Your task to perform on an android device: show emergency info Image 0: 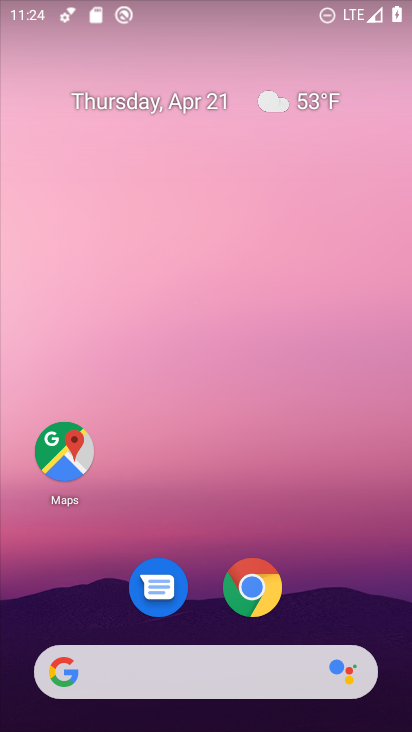
Step 0: drag from (269, 659) to (257, 238)
Your task to perform on an android device: show emergency info Image 1: 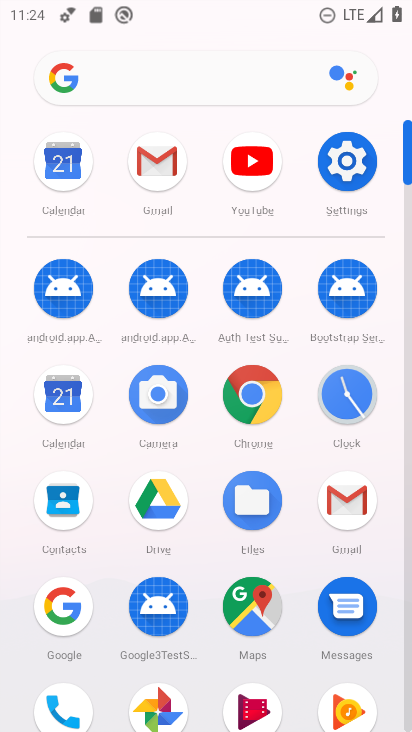
Step 1: click (342, 165)
Your task to perform on an android device: show emergency info Image 2: 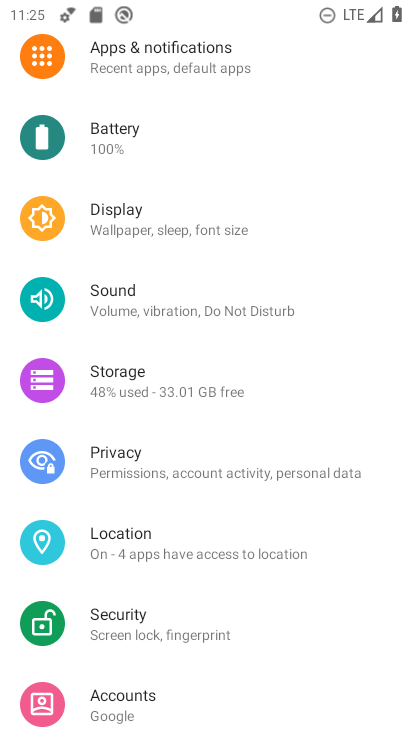
Step 2: drag from (178, 580) to (195, 167)
Your task to perform on an android device: show emergency info Image 3: 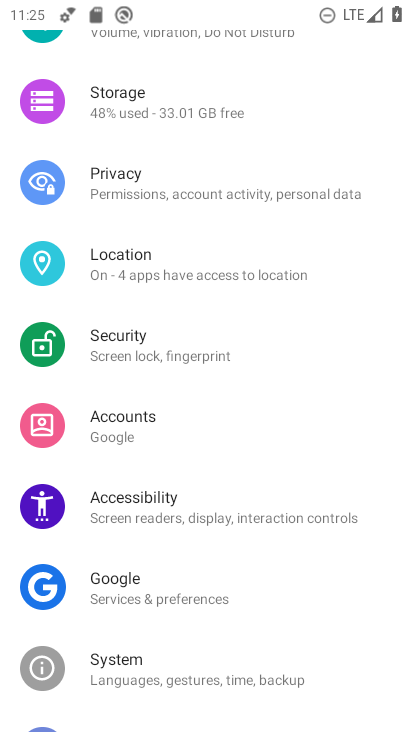
Step 3: drag from (132, 652) to (165, 266)
Your task to perform on an android device: show emergency info Image 4: 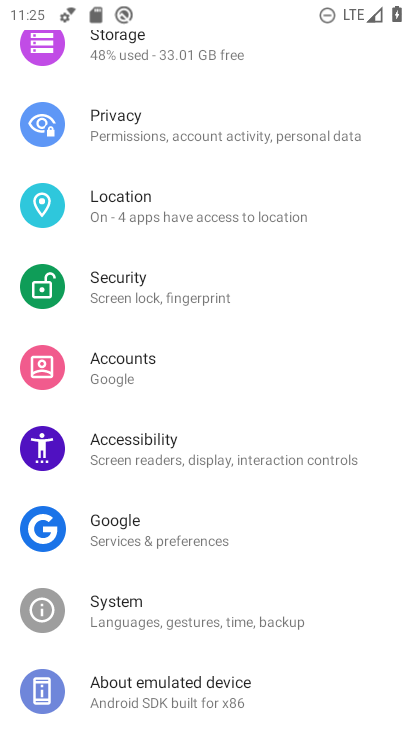
Step 4: click (130, 692)
Your task to perform on an android device: show emergency info Image 5: 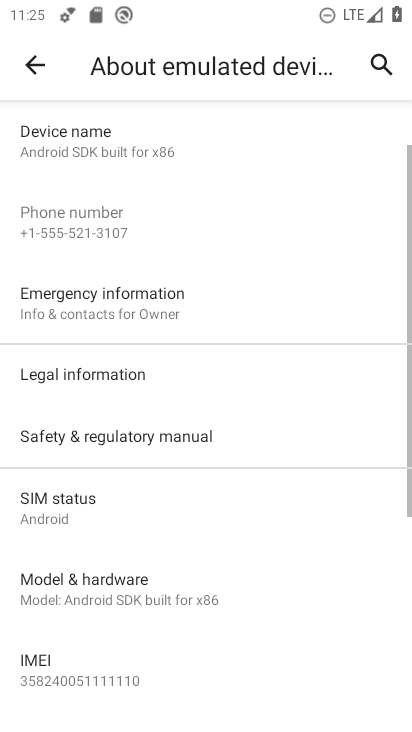
Step 5: click (193, 309)
Your task to perform on an android device: show emergency info Image 6: 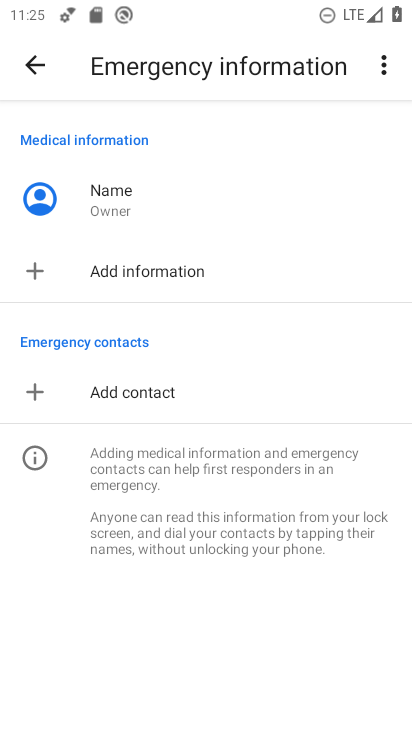
Step 6: task complete